Your task to perform on an android device: Go to display settings Image 0: 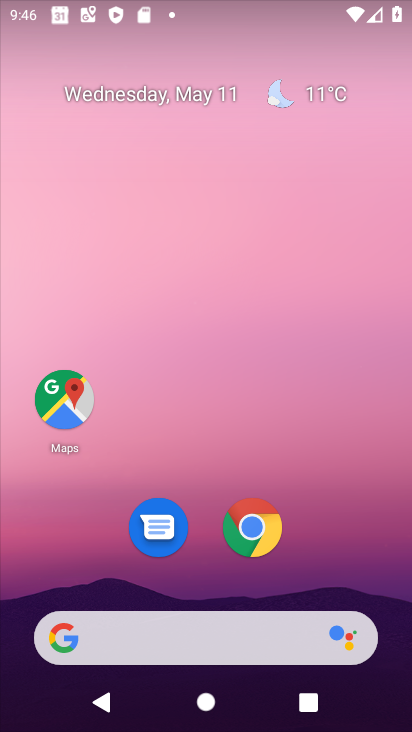
Step 0: drag from (376, 568) to (325, 128)
Your task to perform on an android device: Go to display settings Image 1: 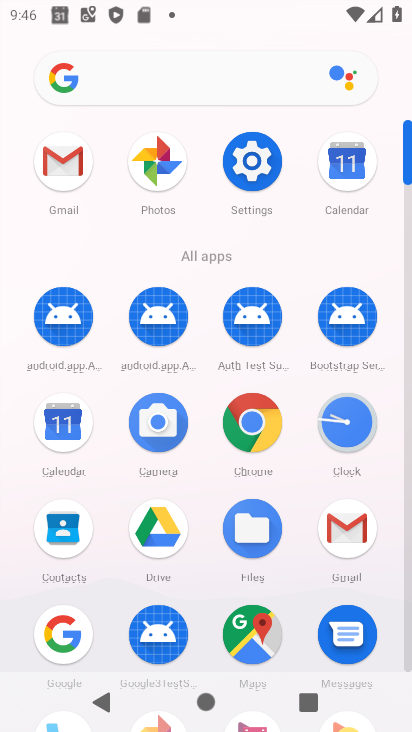
Step 1: click (264, 169)
Your task to perform on an android device: Go to display settings Image 2: 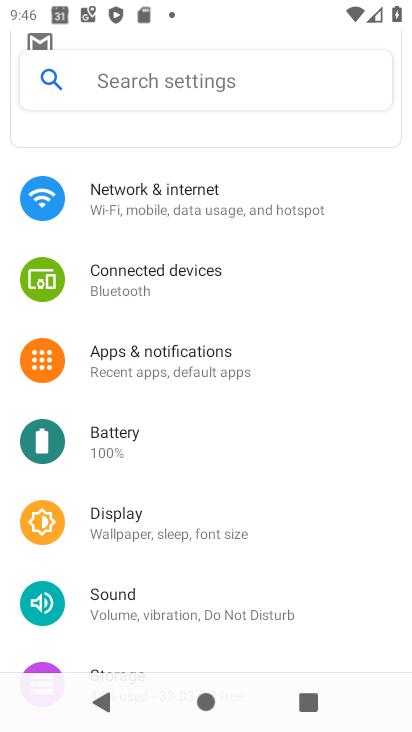
Step 2: drag from (177, 564) to (207, 226)
Your task to perform on an android device: Go to display settings Image 3: 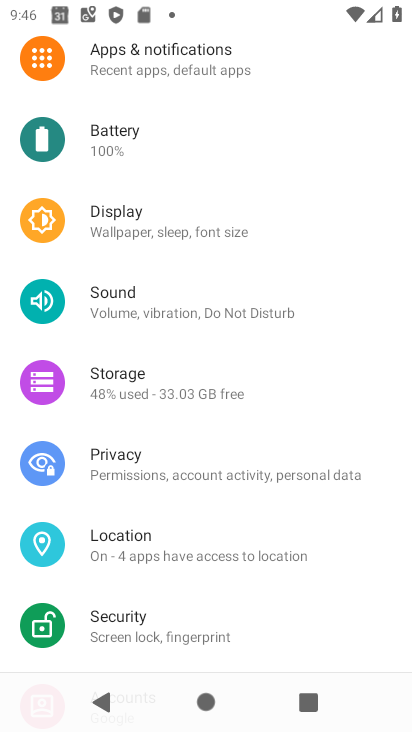
Step 3: click (104, 206)
Your task to perform on an android device: Go to display settings Image 4: 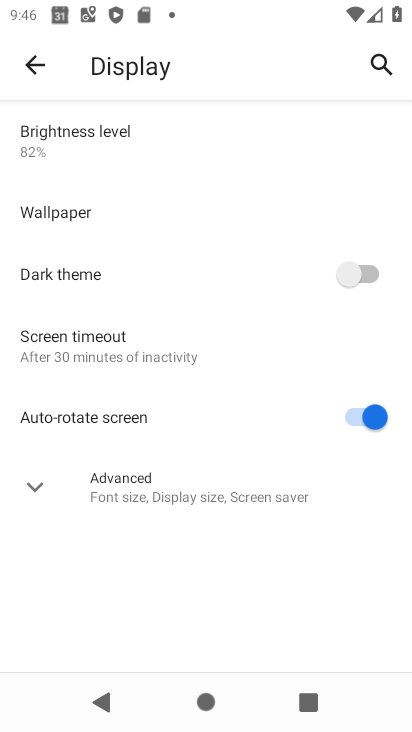
Step 4: task complete